Your task to perform on an android device: Go to Wikipedia Image 0: 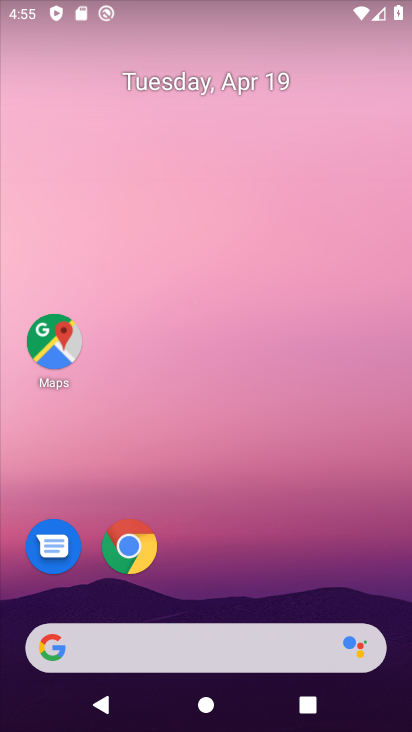
Step 0: drag from (325, 438) to (380, 495)
Your task to perform on an android device: Go to Wikipedia Image 1: 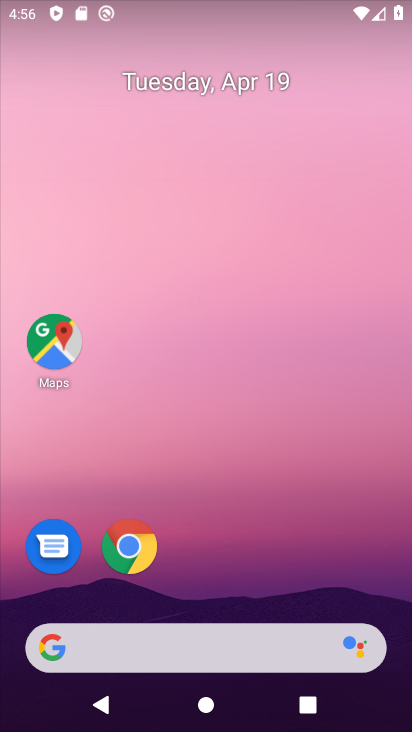
Step 1: drag from (349, 487) to (34, 406)
Your task to perform on an android device: Go to Wikipedia Image 2: 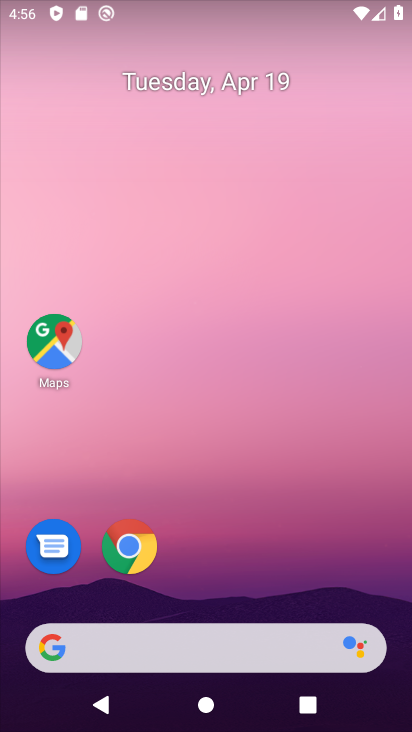
Step 2: drag from (276, 398) to (193, 24)
Your task to perform on an android device: Go to Wikipedia Image 3: 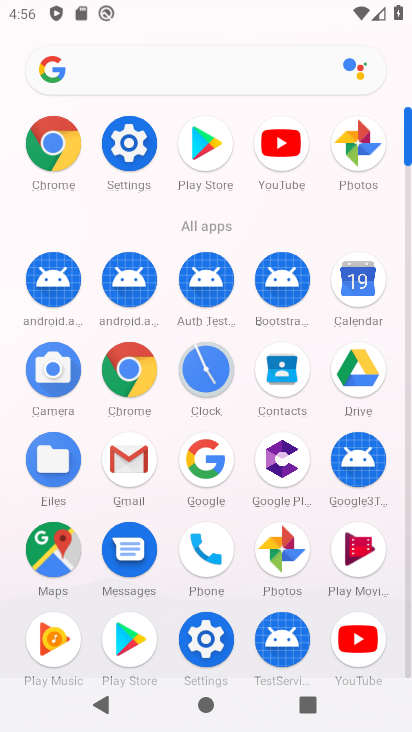
Step 3: click (147, 147)
Your task to perform on an android device: Go to Wikipedia Image 4: 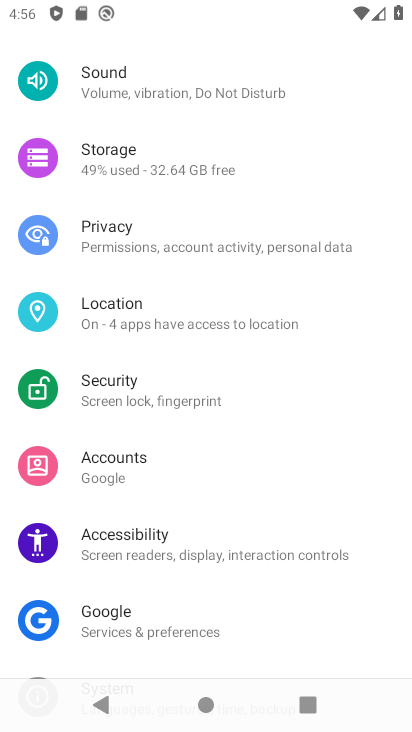
Step 4: click (176, 701)
Your task to perform on an android device: Go to Wikipedia Image 5: 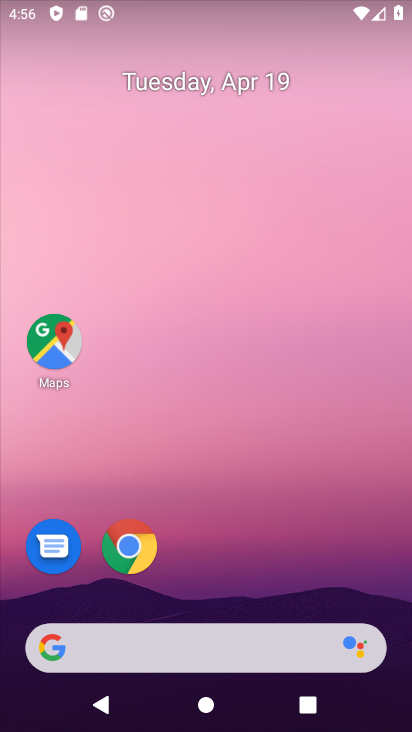
Step 5: drag from (232, 570) to (190, 190)
Your task to perform on an android device: Go to Wikipedia Image 6: 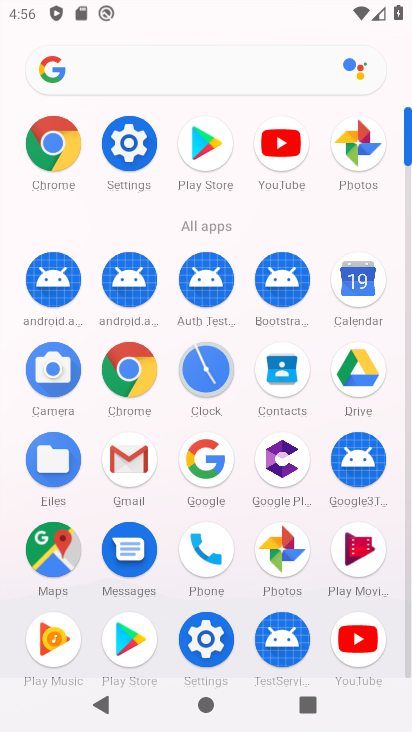
Step 6: click (120, 150)
Your task to perform on an android device: Go to Wikipedia Image 7: 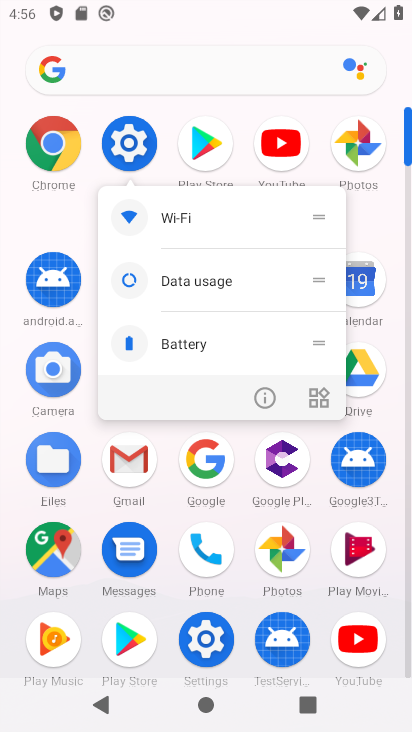
Step 7: click (196, 721)
Your task to perform on an android device: Go to Wikipedia Image 8: 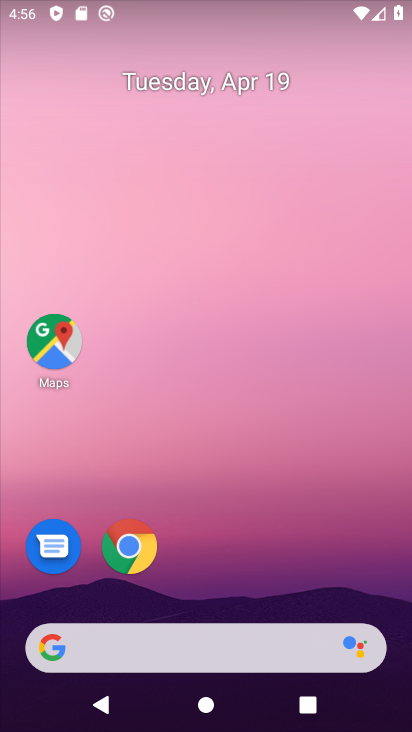
Step 8: click (116, 557)
Your task to perform on an android device: Go to Wikipedia Image 9: 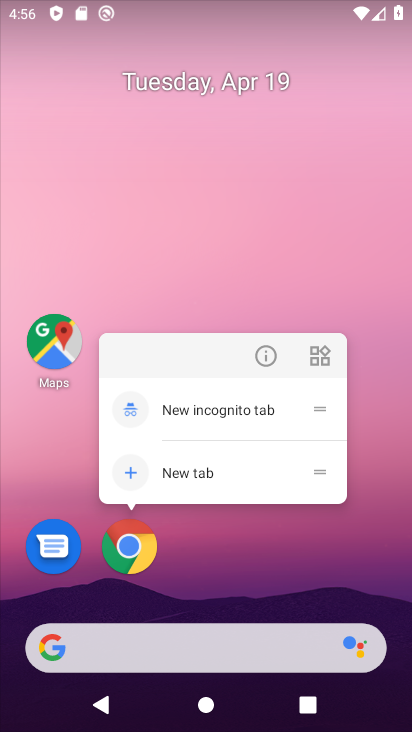
Step 9: click (116, 559)
Your task to perform on an android device: Go to Wikipedia Image 10: 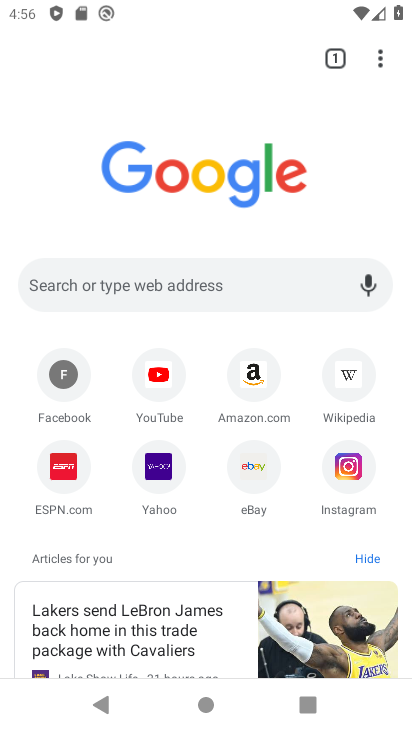
Step 10: click (164, 290)
Your task to perform on an android device: Go to Wikipedia Image 11: 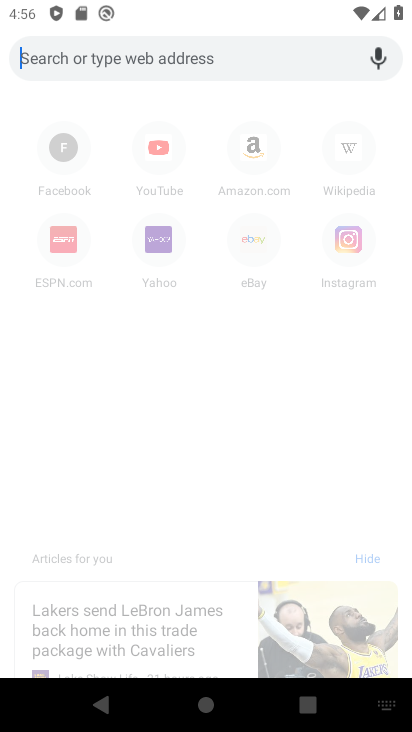
Step 11: click (339, 139)
Your task to perform on an android device: Go to Wikipedia Image 12: 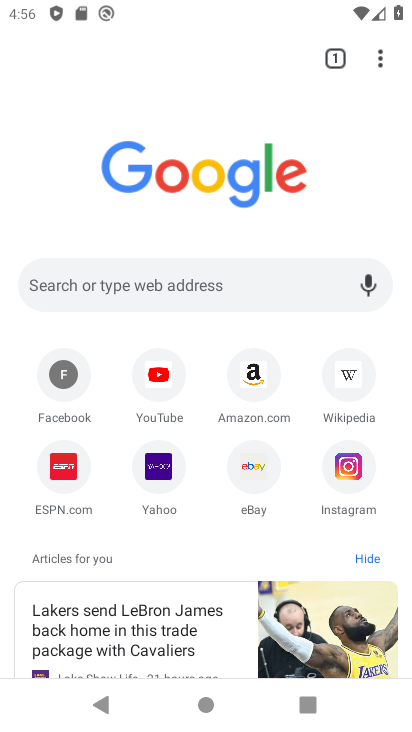
Step 12: click (352, 387)
Your task to perform on an android device: Go to Wikipedia Image 13: 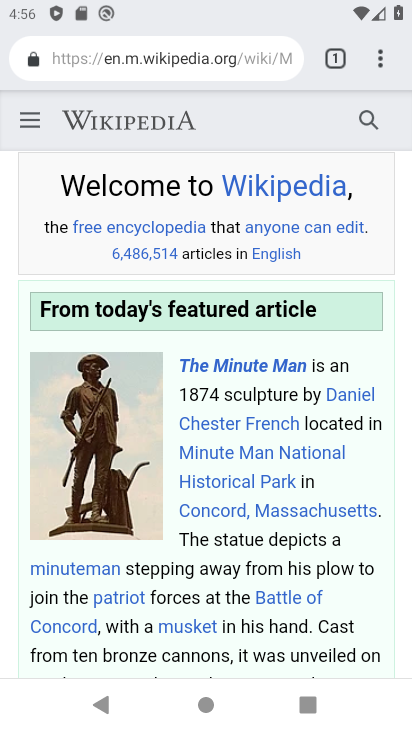
Step 13: task complete